Your task to perform on an android device: Go to ESPN.com Image 0: 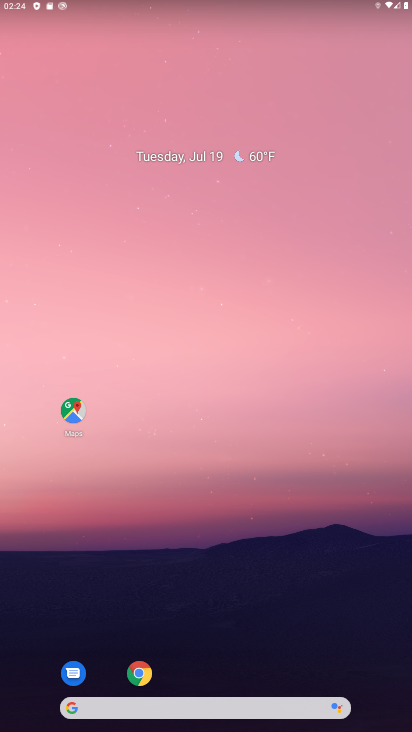
Step 0: click (147, 682)
Your task to perform on an android device: Go to ESPN.com Image 1: 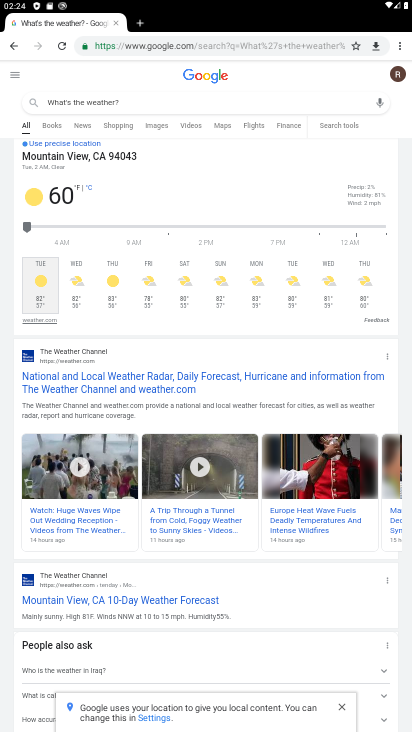
Step 1: click (399, 31)
Your task to perform on an android device: Go to ESPN.com Image 2: 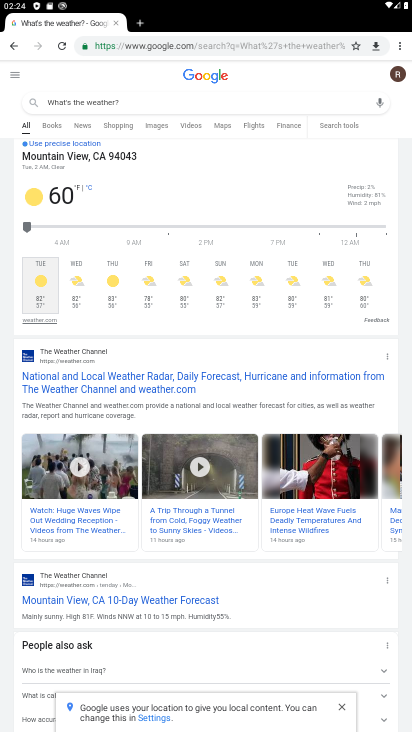
Step 2: drag from (399, 39) to (393, 73)
Your task to perform on an android device: Go to ESPN.com Image 3: 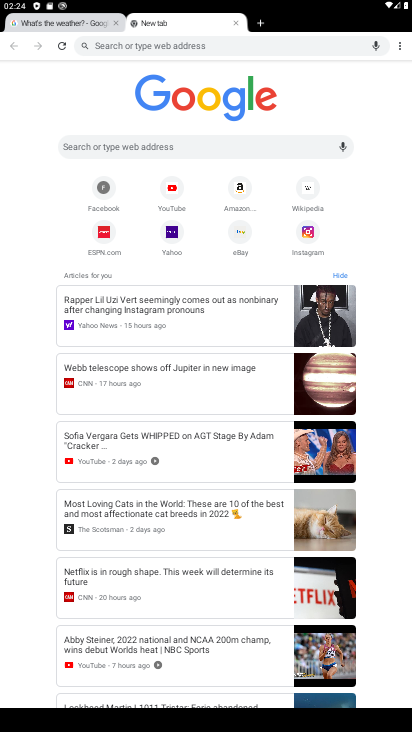
Step 3: click (101, 248)
Your task to perform on an android device: Go to ESPN.com Image 4: 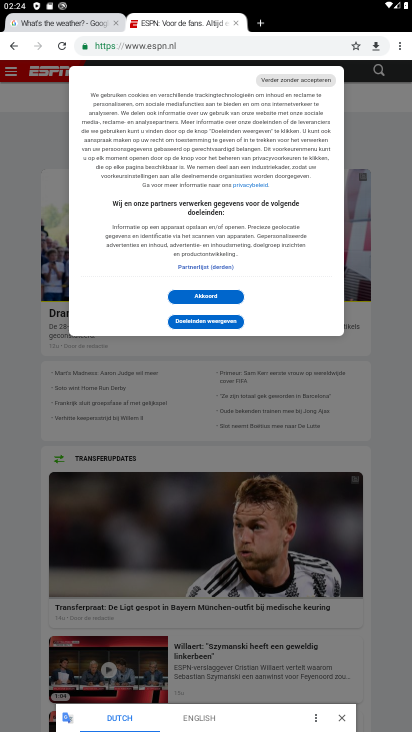
Step 4: task complete